Your task to perform on an android device: turn on sleep mode Image 0: 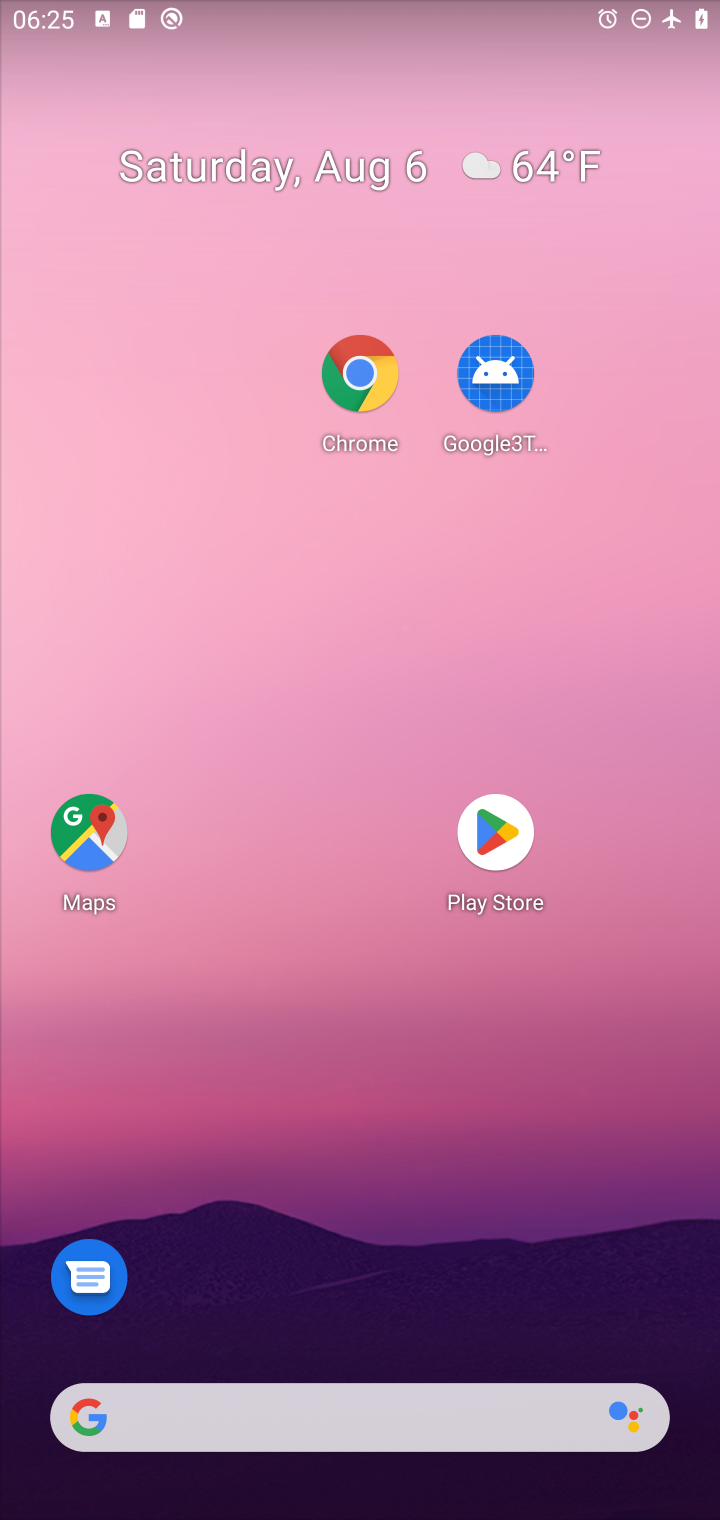
Step 0: drag from (482, 1382) to (476, 439)
Your task to perform on an android device: turn on sleep mode Image 1: 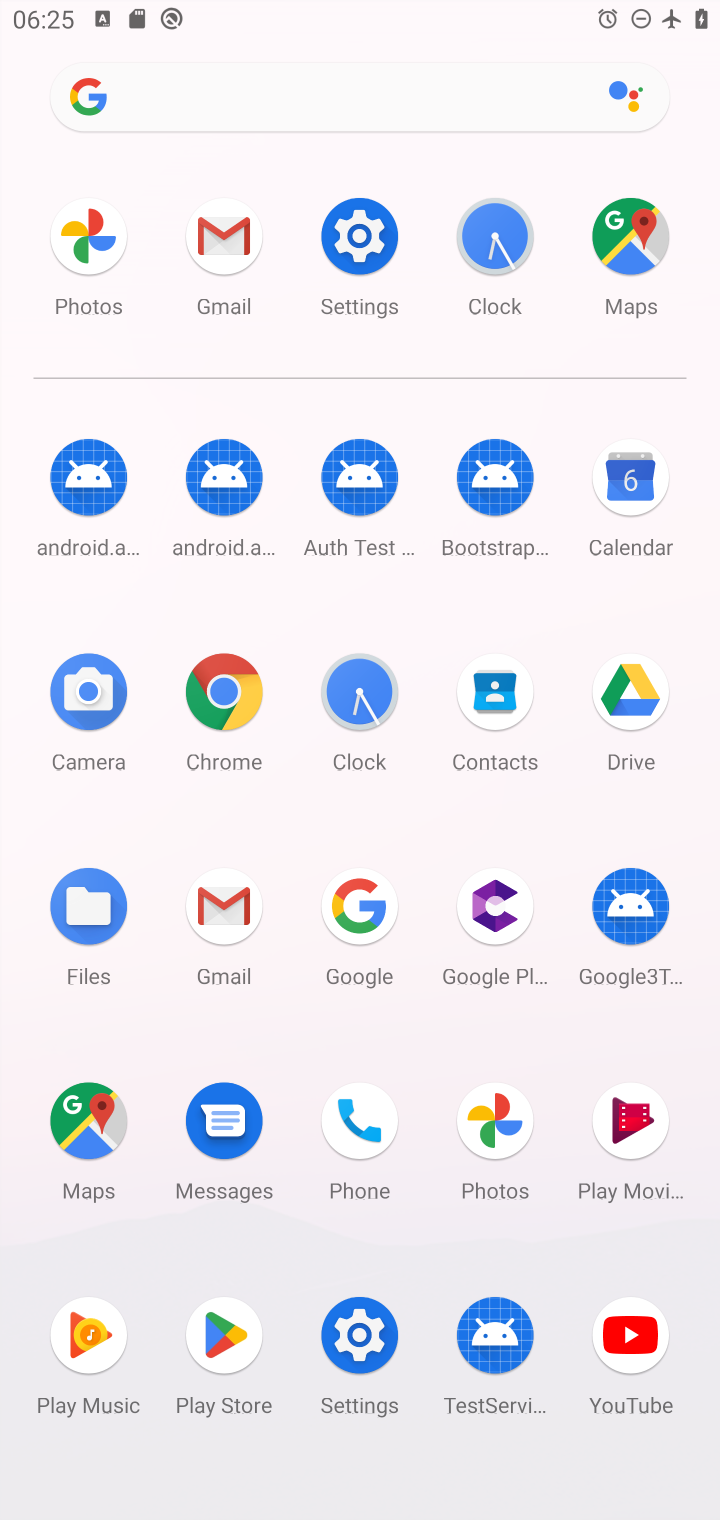
Step 1: click (363, 247)
Your task to perform on an android device: turn on sleep mode Image 2: 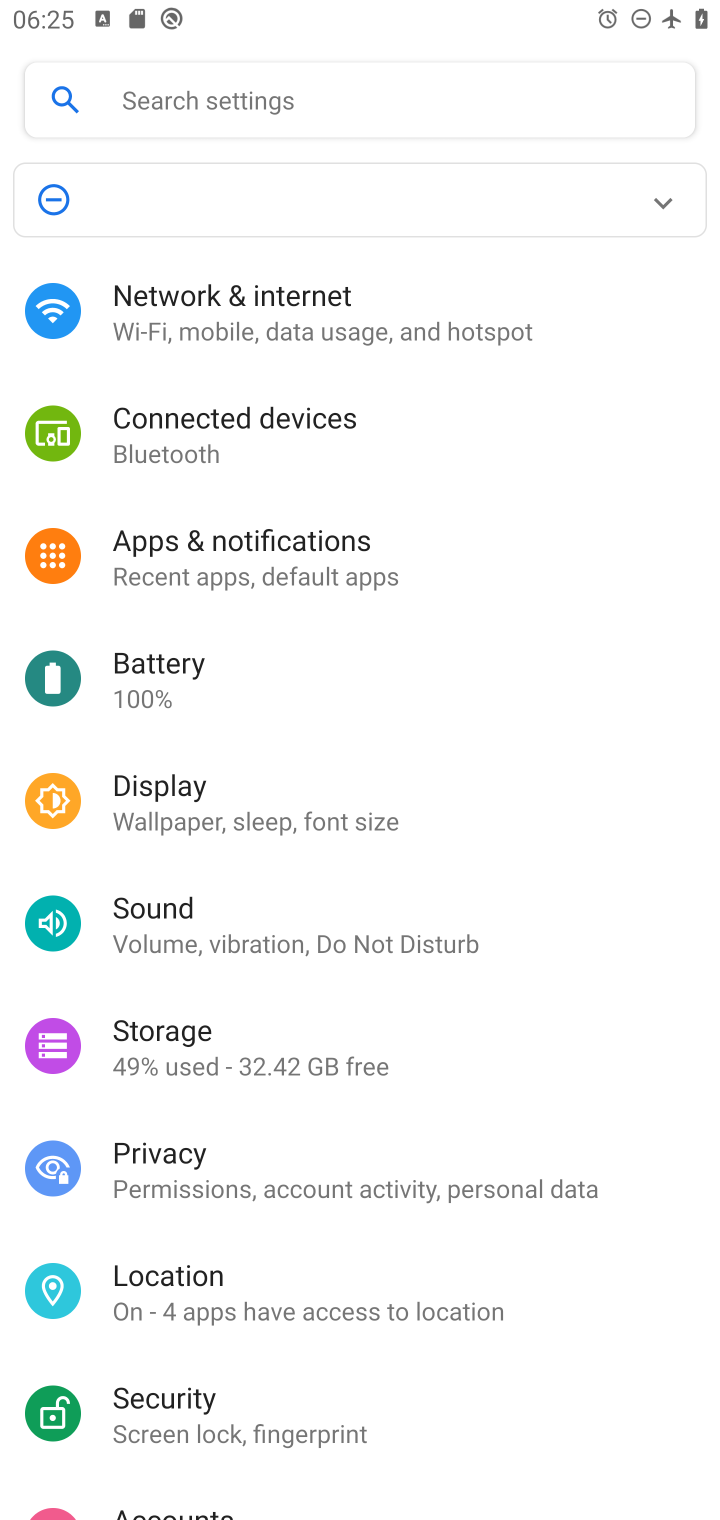
Step 2: click (293, 795)
Your task to perform on an android device: turn on sleep mode Image 3: 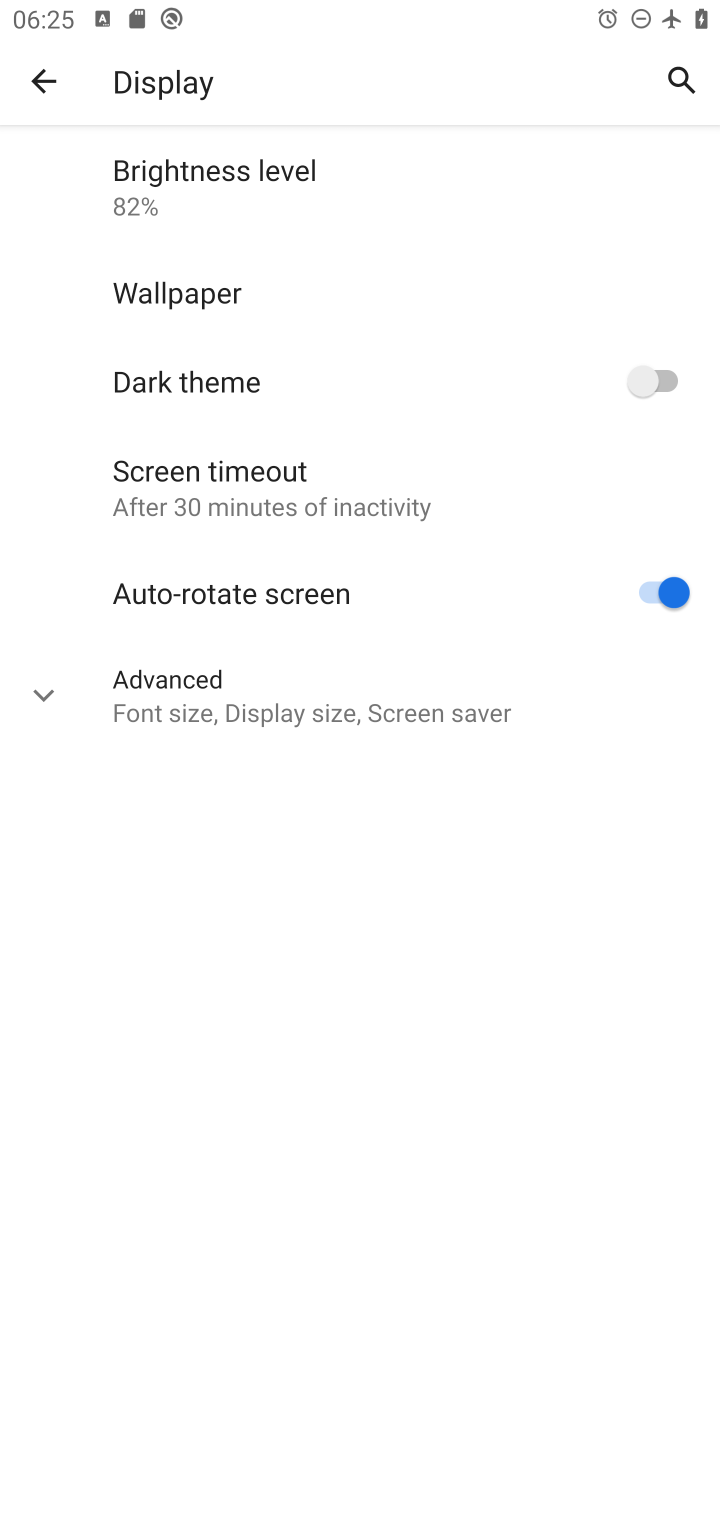
Step 3: task complete